Your task to perform on an android device: all mails in gmail Image 0: 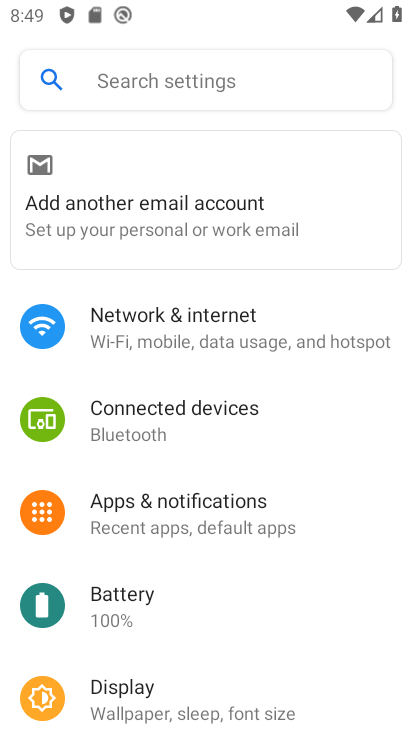
Step 0: press home button
Your task to perform on an android device: all mails in gmail Image 1: 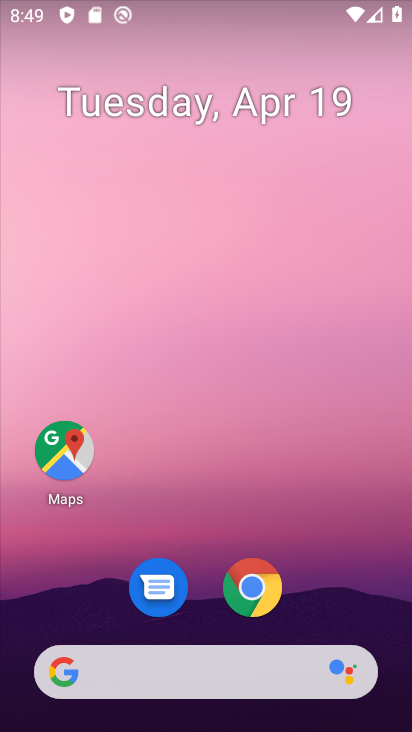
Step 1: drag from (356, 541) to (323, 9)
Your task to perform on an android device: all mails in gmail Image 2: 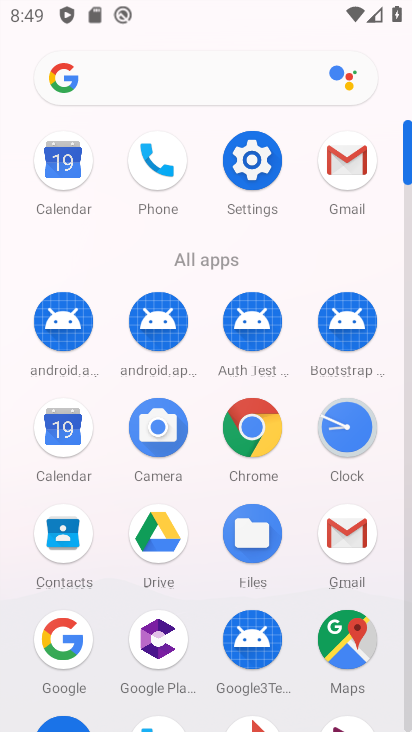
Step 2: click (342, 160)
Your task to perform on an android device: all mails in gmail Image 3: 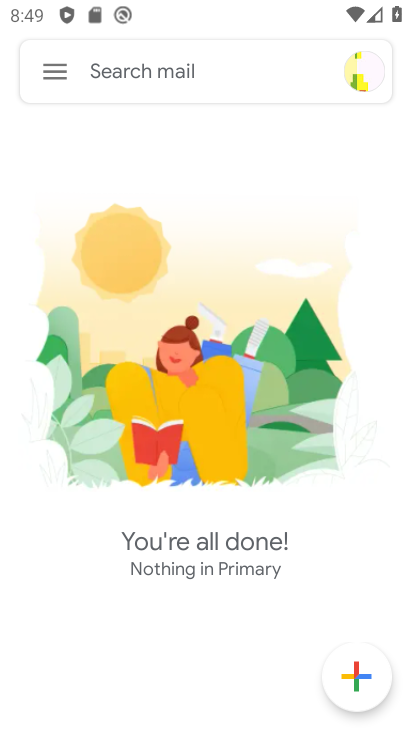
Step 3: click (50, 67)
Your task to perform on an android device: all mails in gmail Image 4: 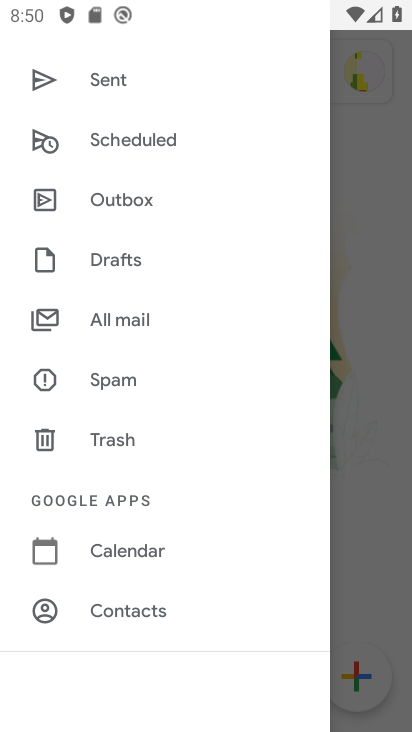
Step 4: click (111, 331)
Your task to perform on an android device: all mails in gmail Image 5: 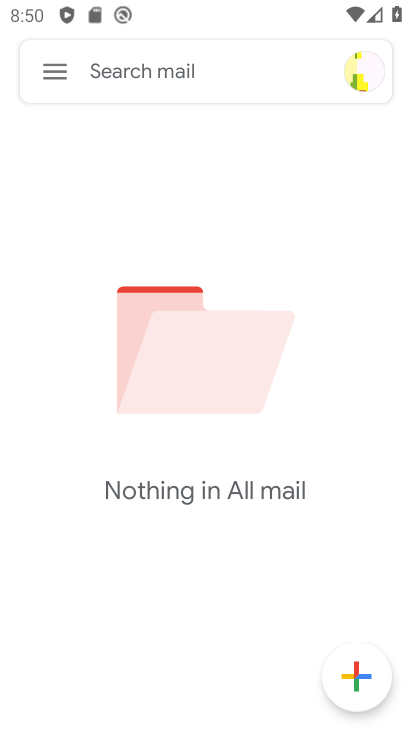
Step 5: task complete